Your task to perform on an android device: toggle notifications settings in the gmail app Image 0: 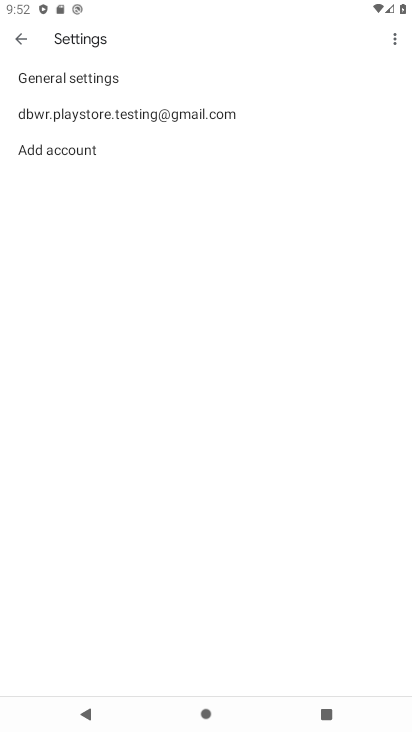
Step 0: click (94, 76)
Your task to perform on an android device: toggle notifications settings in the gmail app Image 1: 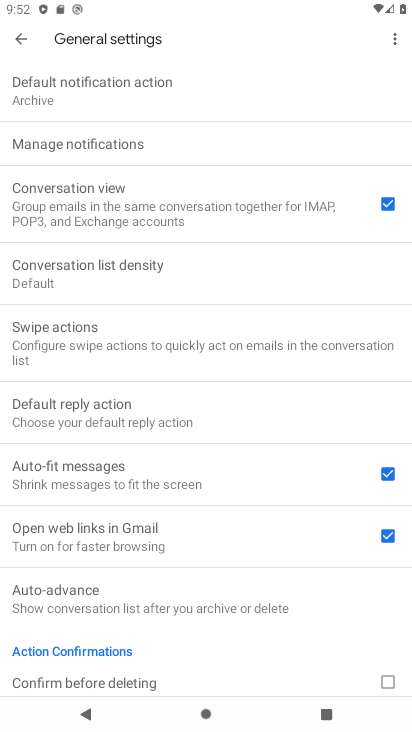
Step 1: click (124, 146)
Your task to perform on an android device: toggle notifications settings in the gmail app Image 2: 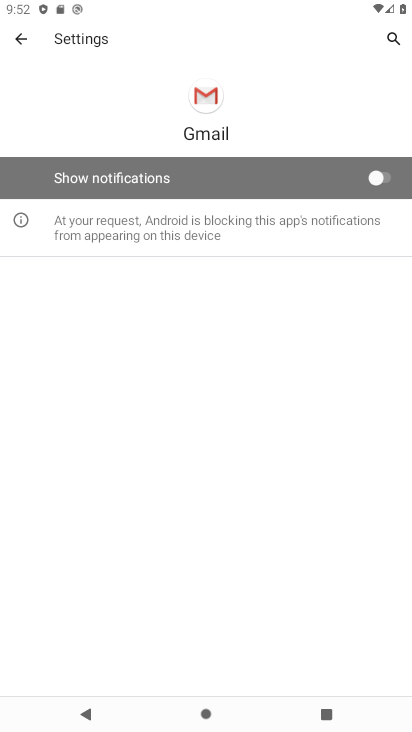
Step 2: click (394, 182)
Your task to perform on an android device: toggle notifications settings in the gmail app Image 3: 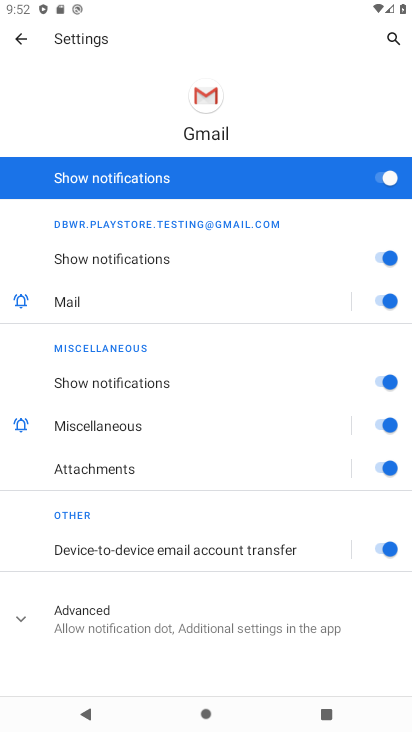
Step 3: task complete